Your task to perform on an android device: open wifi settings Image 0: 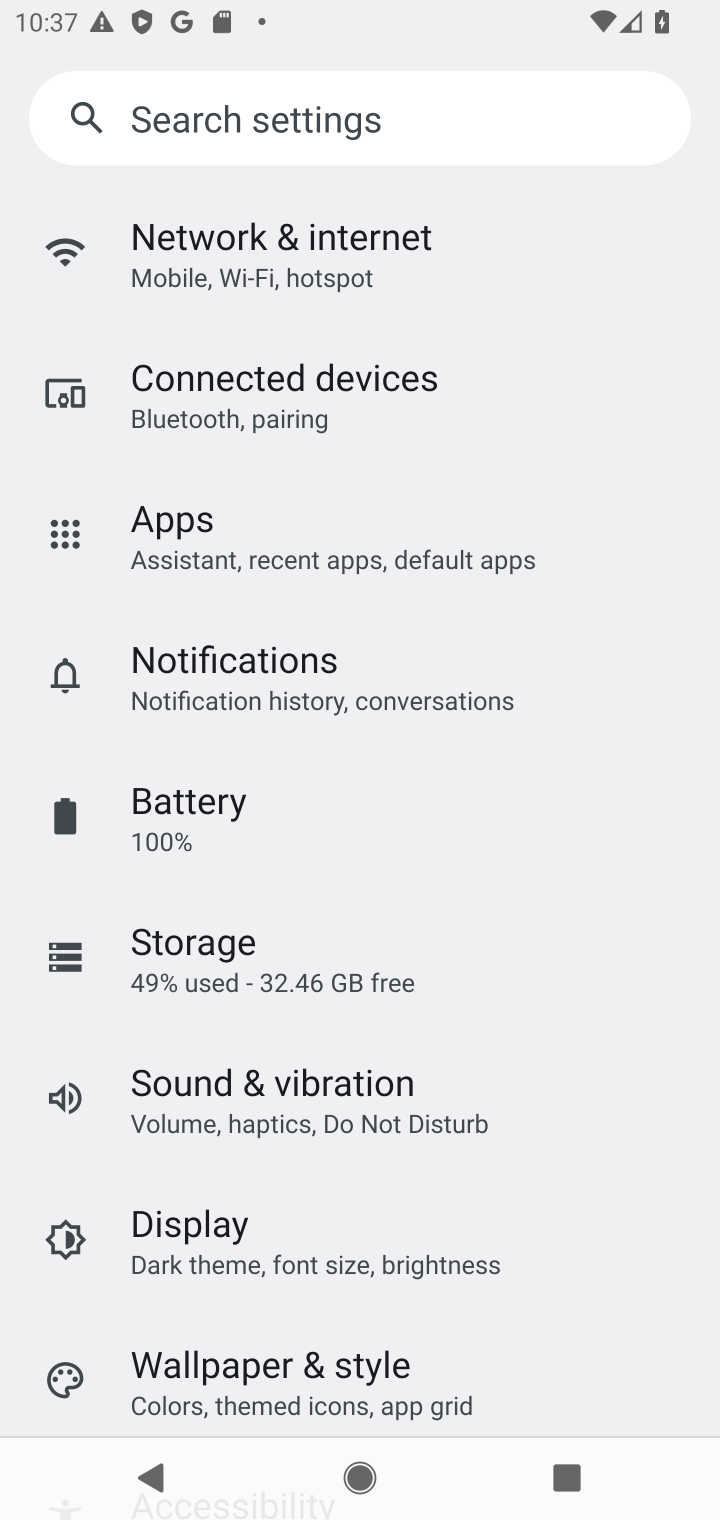
Step 0: click (276, 258)
Your task to perform on an android device: open wifi settings Image 1: 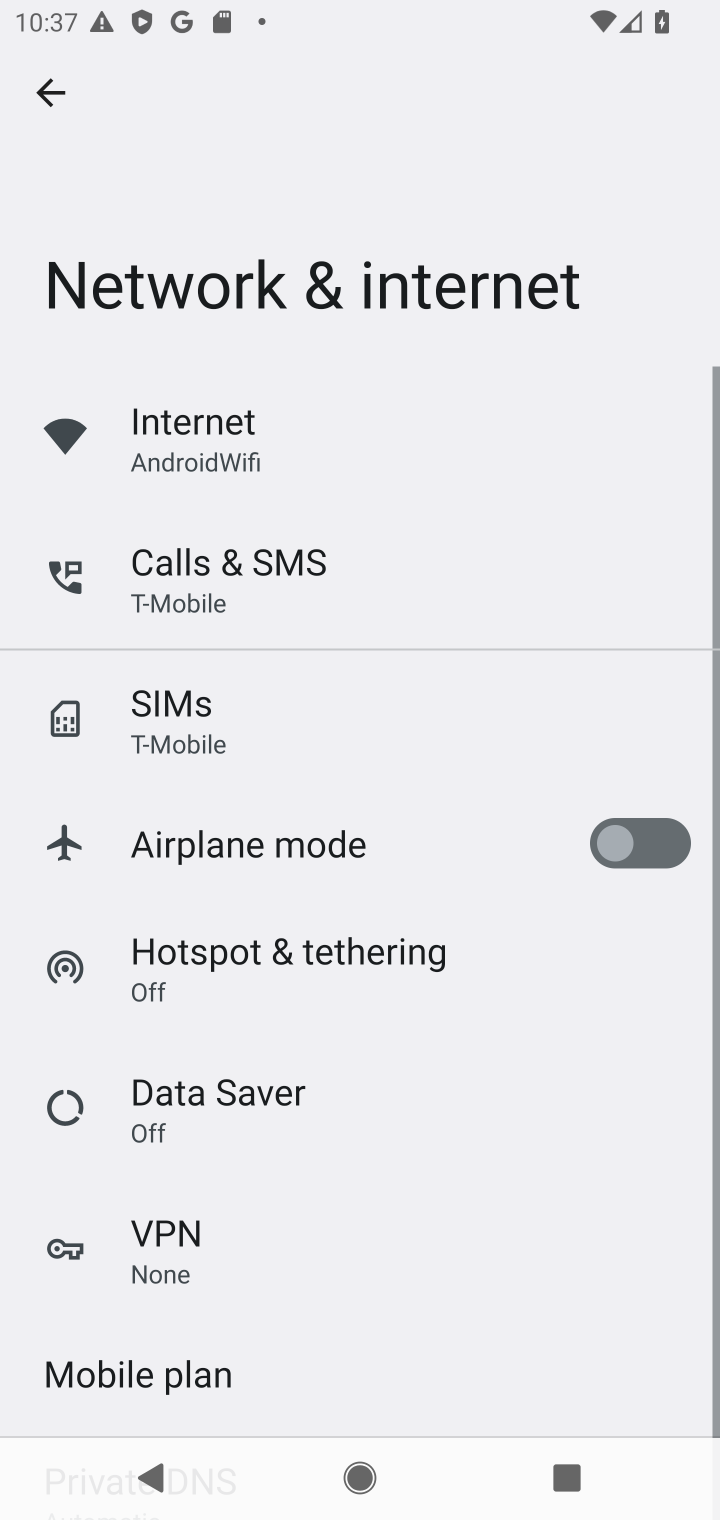
Step 1: click (266, 468)
Your task to perform on an android device: open wifi settings Image 2: 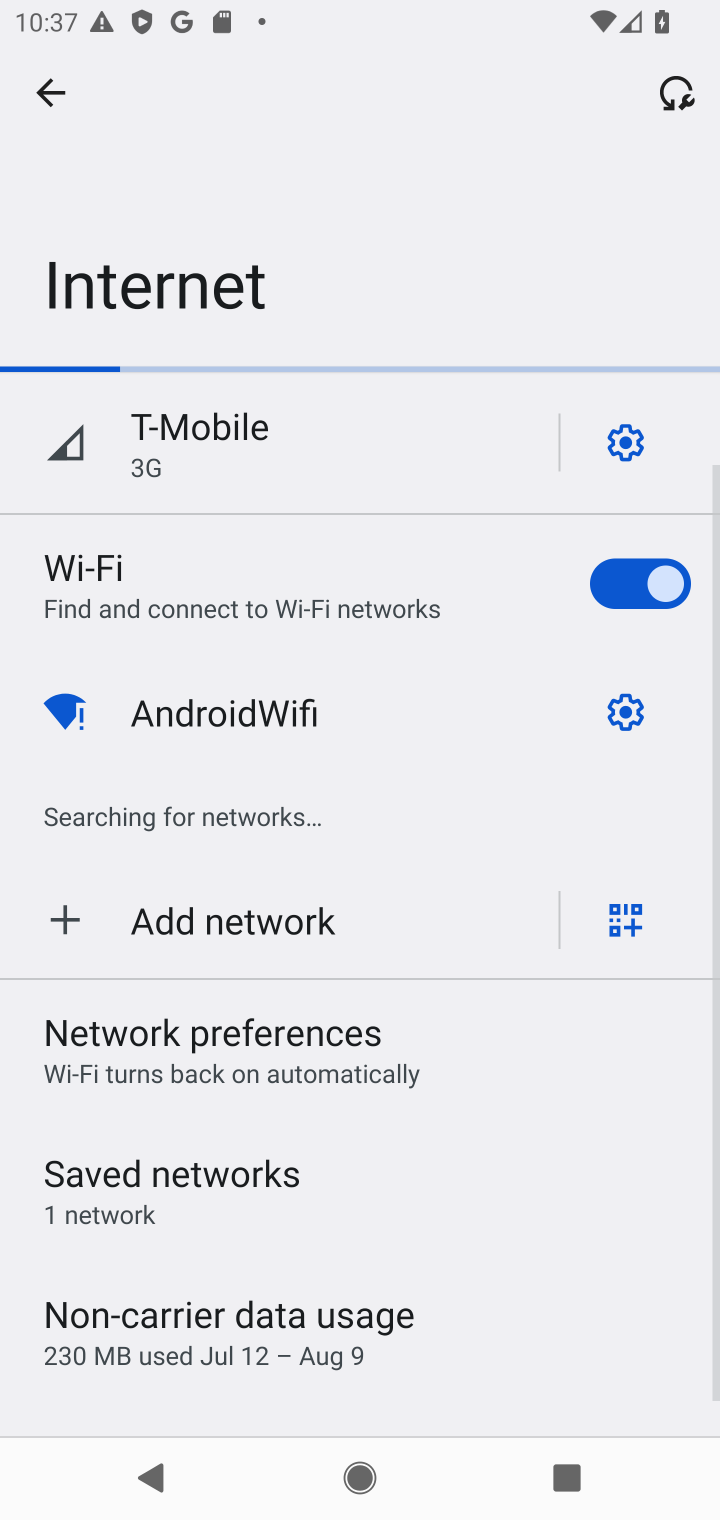
Step 2: click (609, 714)
Your task to perform on an android device: open wifi settings Image 3: 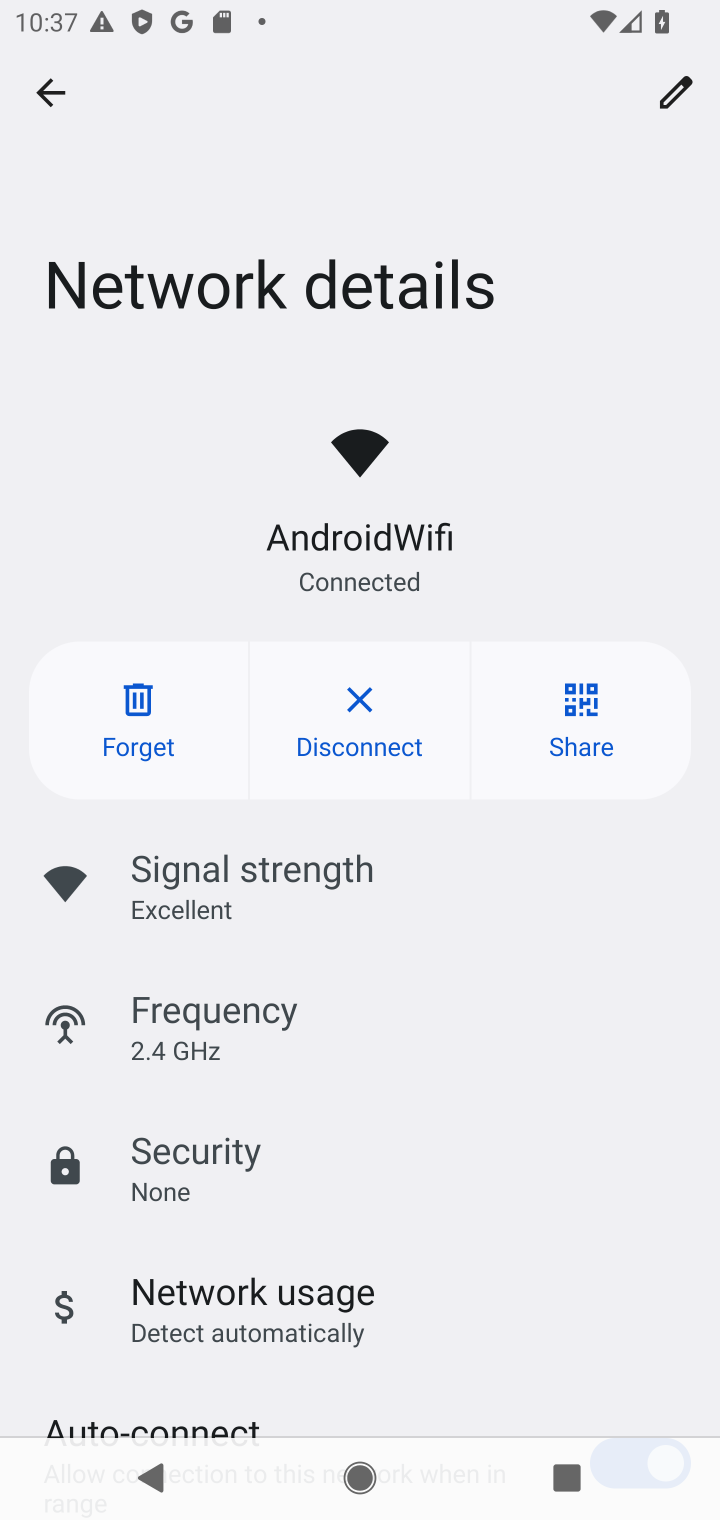
Step 3: task complete